Your task to perform on an android device: turn on showing notifications on the lock screen Image 0: 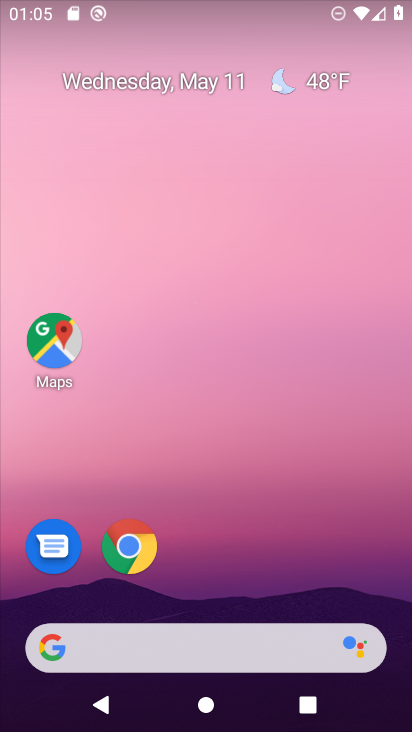
Step 0: drag from (217, 574) to (170, 146)
Your task to perform on an android device: turn on showing notifications on the lock screen Image 1: 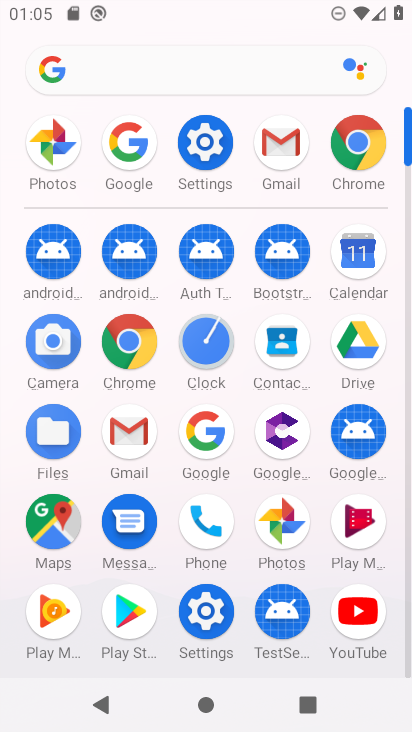
Step 1: click (201, 155)
Your task to perform on an android device: turn on showing notifications on the lock screen Image 2: 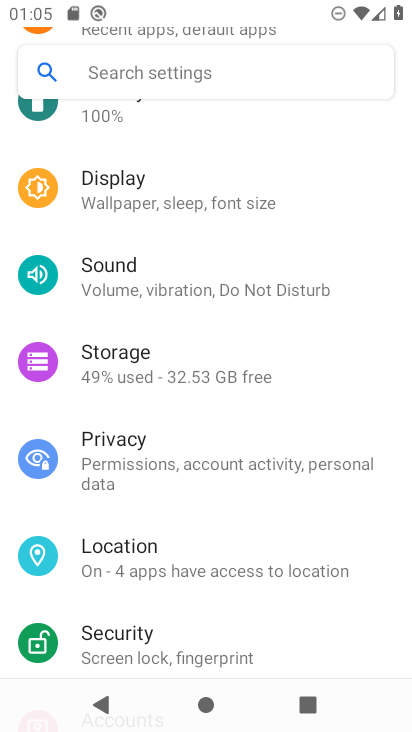
Step 2: drag from (157, 198) to (164, 564)
Your task to perform on an android device: turn on showing notifications on the lock screen Image 3: 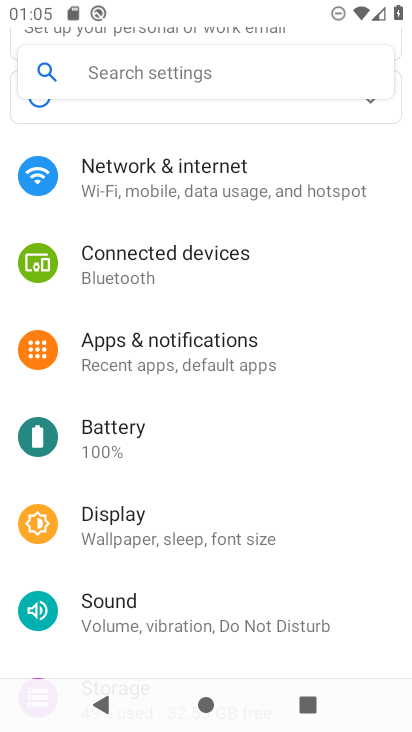
Step 3: click (180, 330)
Your task to perform on an android device: turn on showing notifications on the lock screen Image 4: 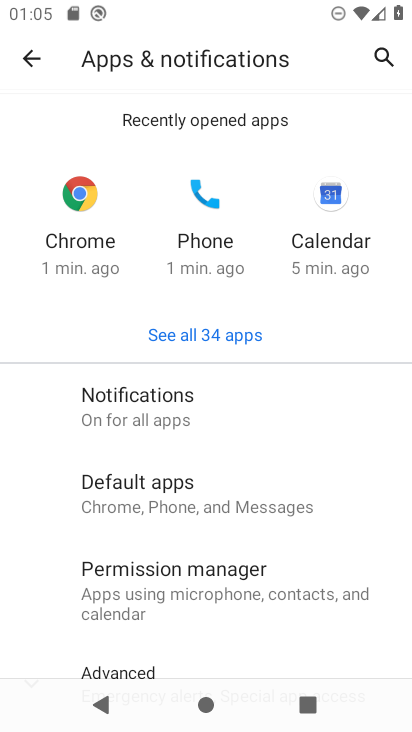
Step 4: drag from (217, 620) to (222, 293)
Your task to perform on an android device: turn on showing notifications on the lock screen Image 5: 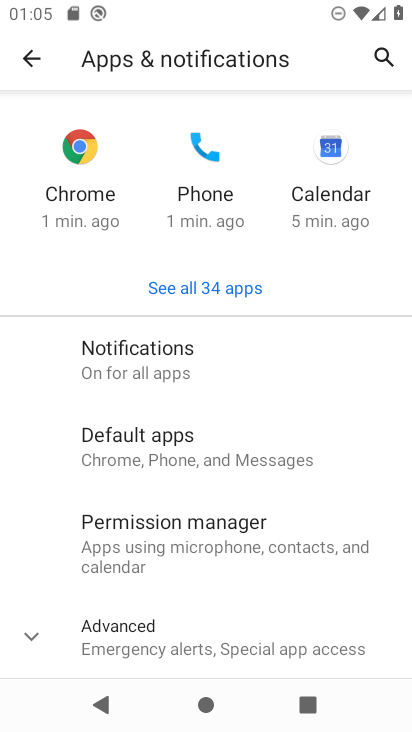
Step 5: click (161, 375)
Your task to perform on an android device: turn on showing notifications on the lock screen Image 6: 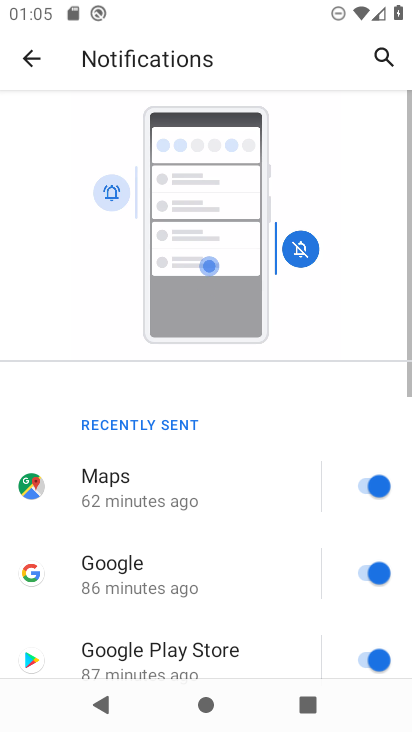
Step 6: drag from (214, 616) to (222, 290)
Your task to perform on an android device: turn on showing notifications on the lock screen Image 7: 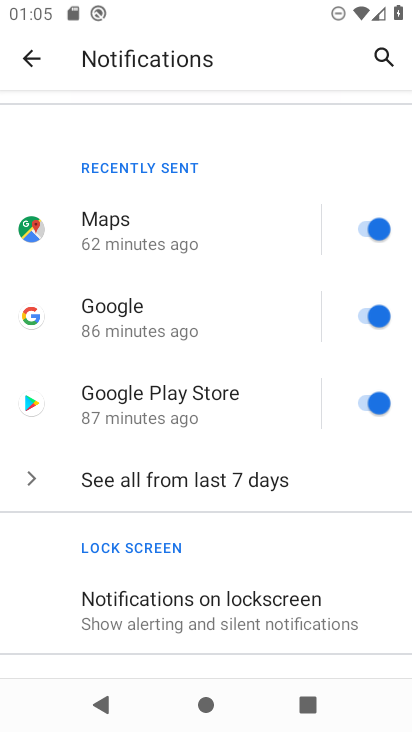
Step 7: click (209, 586)
Your task to perform on an android device: turn on showing notifications on the lock screen Image 8: 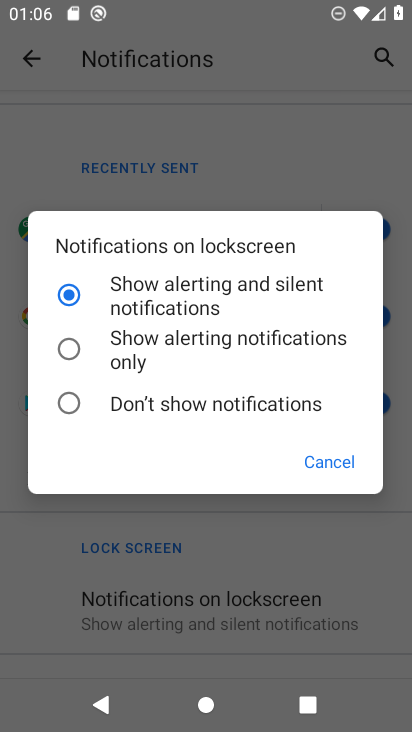
Step 8: task complete